Your task to perform on an android device: turn off javascript in the chrome app Image 0: 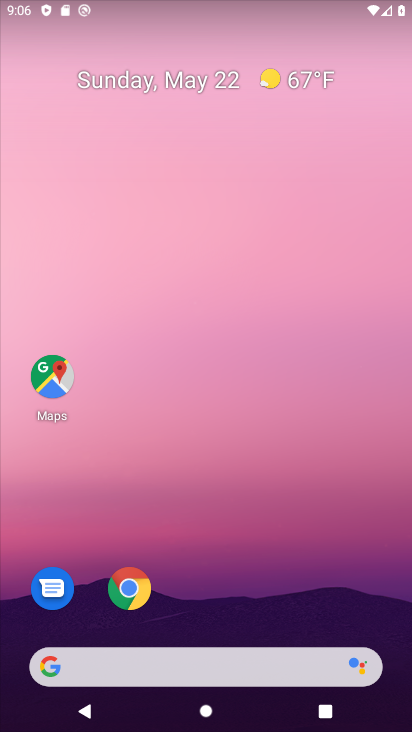
Step 0: click (128, 580)
Your task to perform on an android device: turn off javascript in the chrome app Image 1: 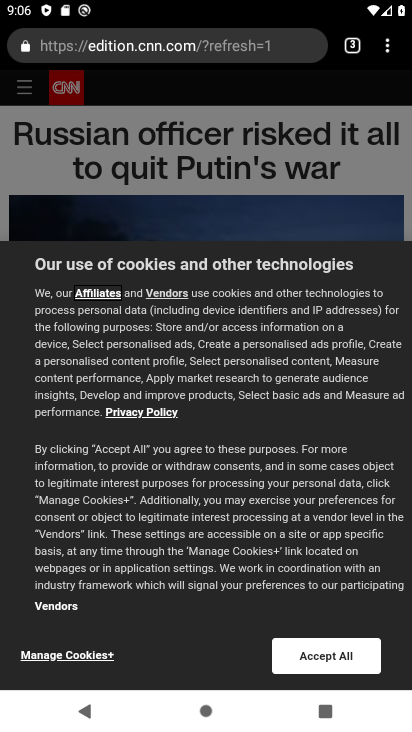
Step 1: click (383, 48)
Your task to perform on an android device: turn off javascript in the chrome app Image 2: 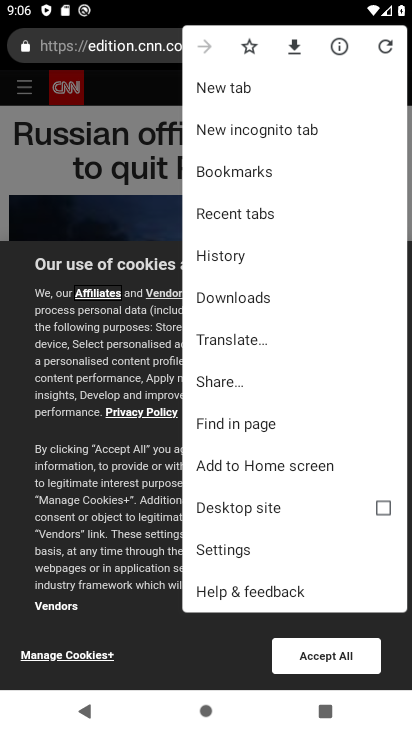
Step 2: click (252, 551)
Your task to perform on an android device: turn off javascript in the chrome app Image 3: 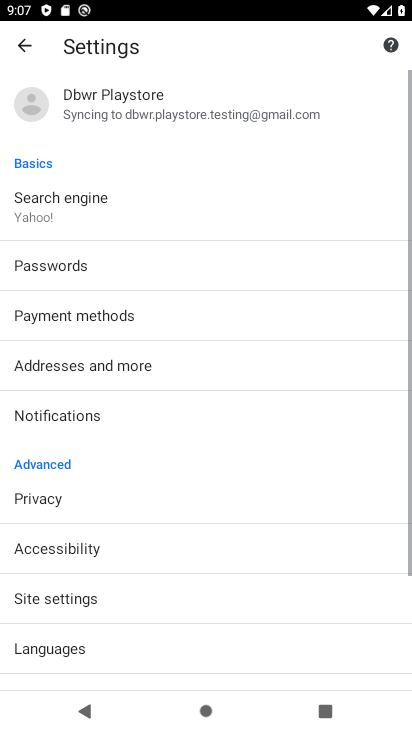
Step 3: drag from (141, 656) to (175, 352)
Your task to perform on an android device: turn off javascript in the chrome app Image 4: 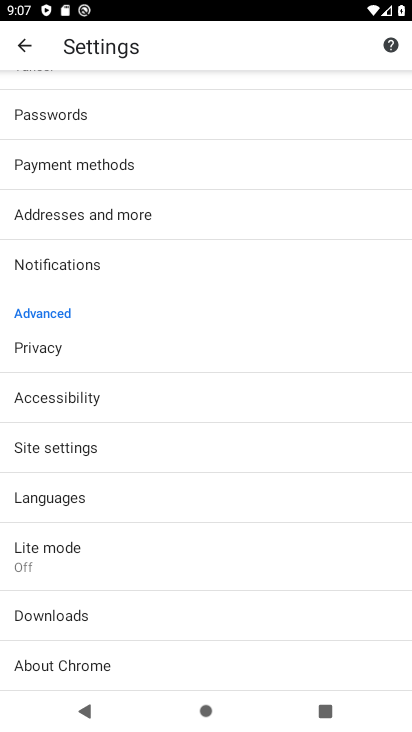
Step 4: click (88, 436)
Your task to perform on an android device: turn off javascript in the chrome app Image 5: 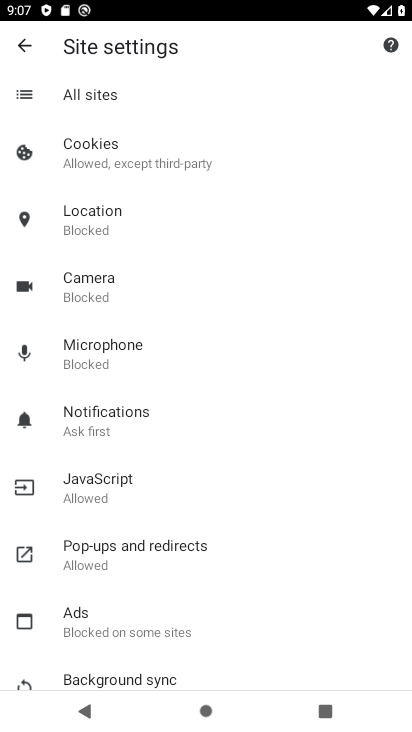
Step 5: click (138, 479)
Your task to perform on an android device: turn off javascript in the chrome app Image 6: 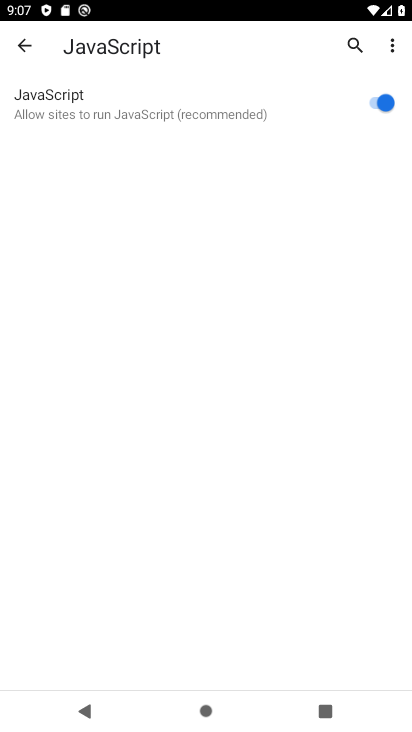
Step 6: click (369, 103)
Your task to perform on an android device: turn off javascript in the chrome app Image 7: 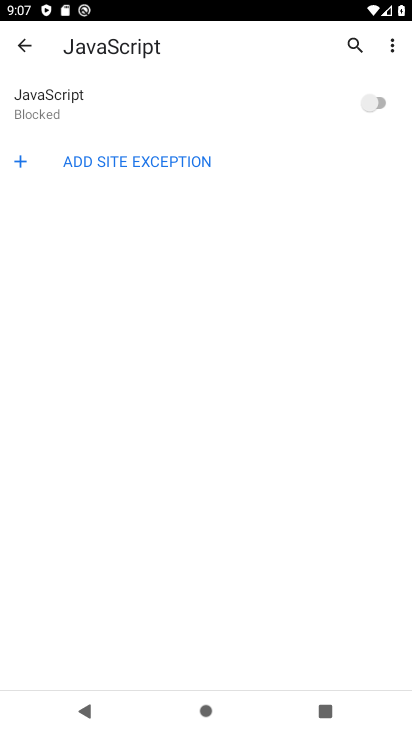
Step 7: task complete